Your task to perform on an android device: Open CNN.com Image 0: 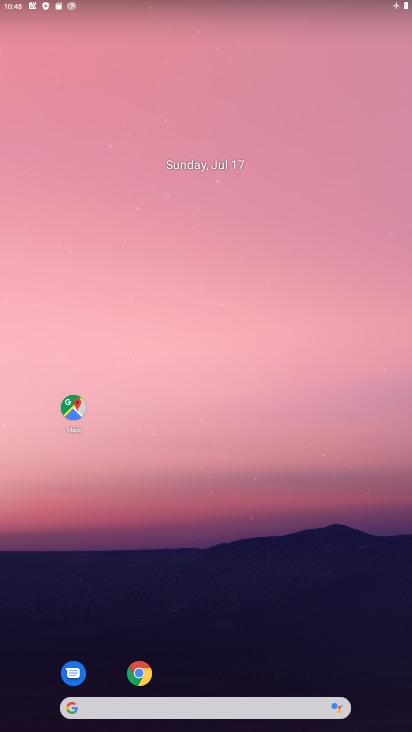
Step 0: drag from (219, 677) to (194, 103)
Your task to perform on an android device: Open CNN.com Image 1: 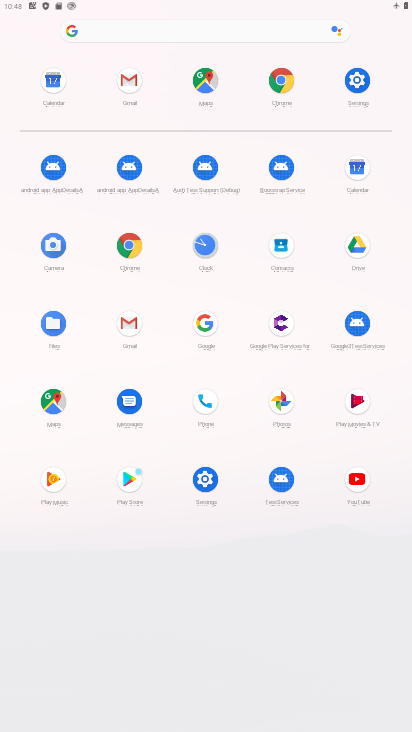
Step 1: click (205, 319)
Your task to perform on an android device: Open CNN.com Image 2: 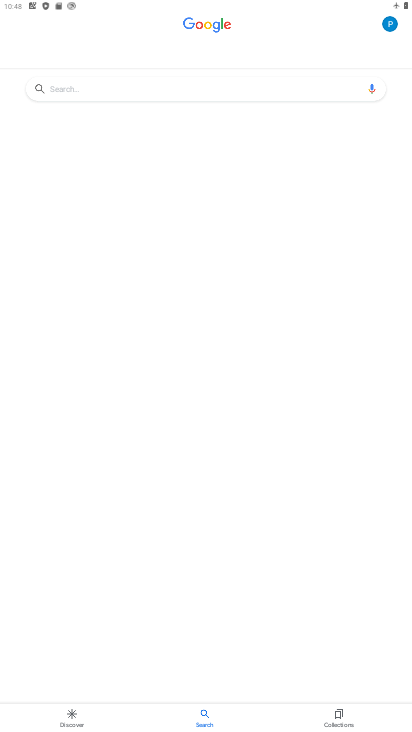
Step 2: click (216, 87)
Your task to perform on an android device: Open CNN.com Image 3: 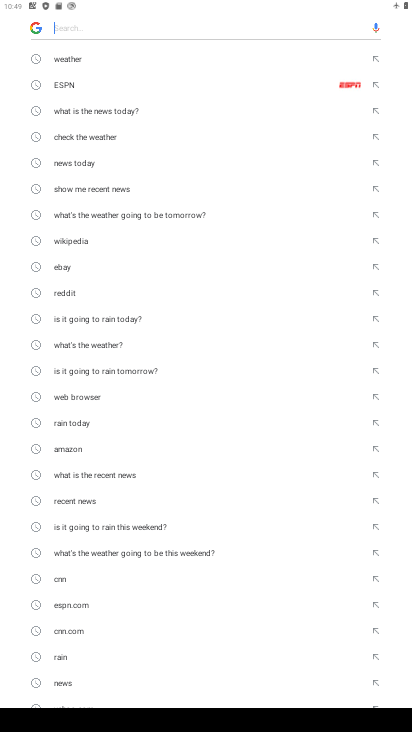
Step 3: type "cnn.com"
Your task to perform on an android device: Open CNN.com Image 4: 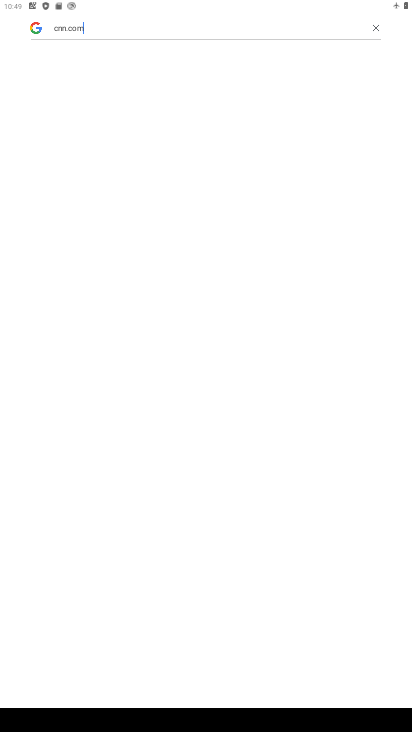
Step 4: task complete